Your task to perform on an android device: turn on airplane mode Image 0: 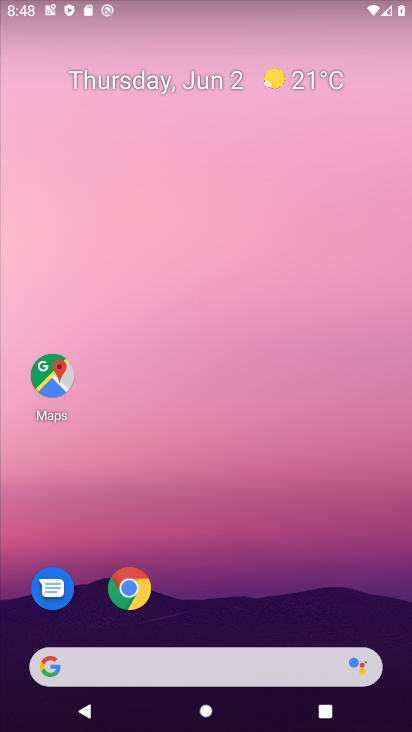
Step 0: drag from (239, 656) to (193, 0)
Your task to perform on an android device: turn on airplane mode Image 1: 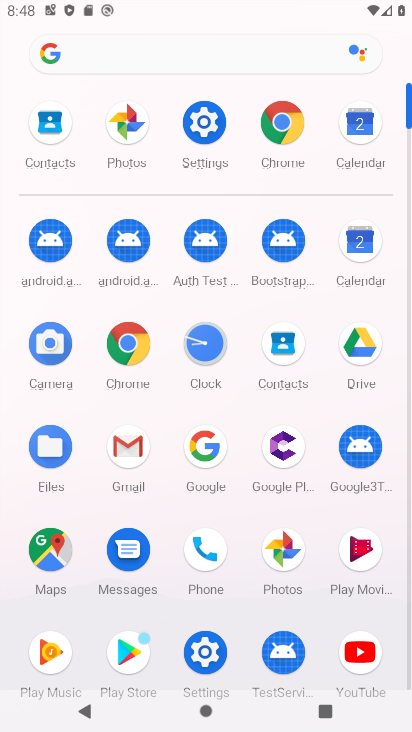
Step 1: click (194, 94)
Your task to perform on an android device: turn on airplane mode Image 2: 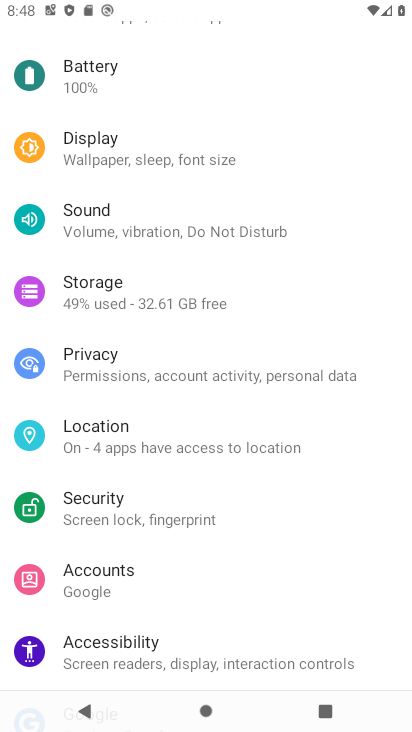
Step 2: drag from (99, 95) to (219, 654)
Your task to perform on an android device: turn on airplane mode Image 3: 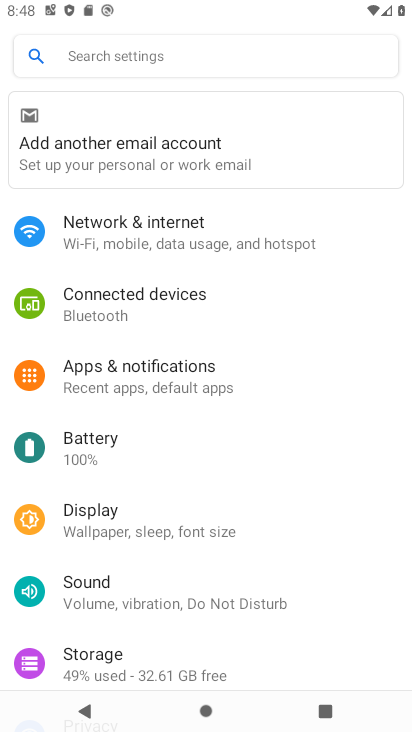
Step 3: click (152, 245)
Your task to perform on an android device: turn on airplane mode Image 4: 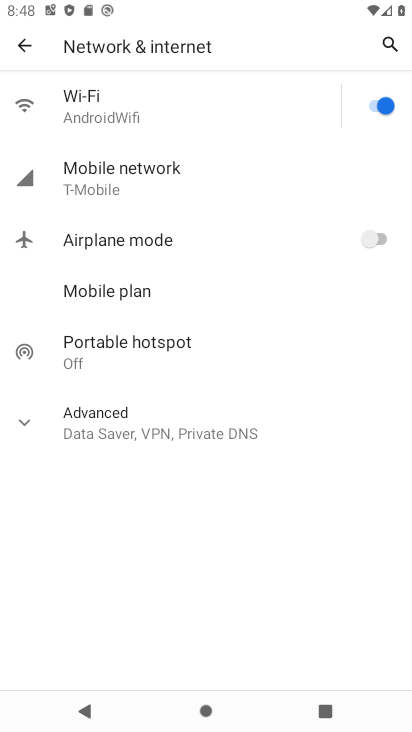
Step 4: click (364, 245)
Your task to perform on an android device: turn on airplane mode Image 5: 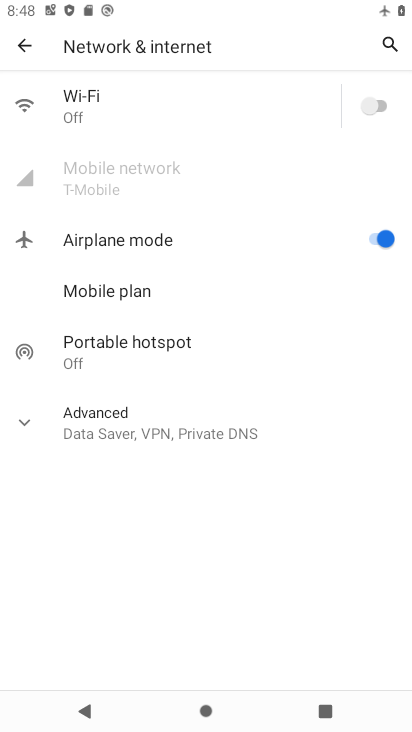
Step 5: task complete